Your task to perform on an android device: turn pop-ups off in chrome Image 0: 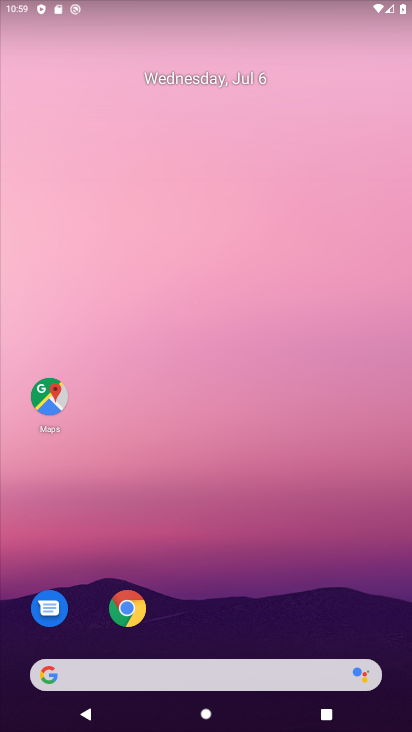
Step 0: drag from (27, 265) to (396, 394)
Your task to perform on an android device: turn pop-ups off in chrome Image 1: 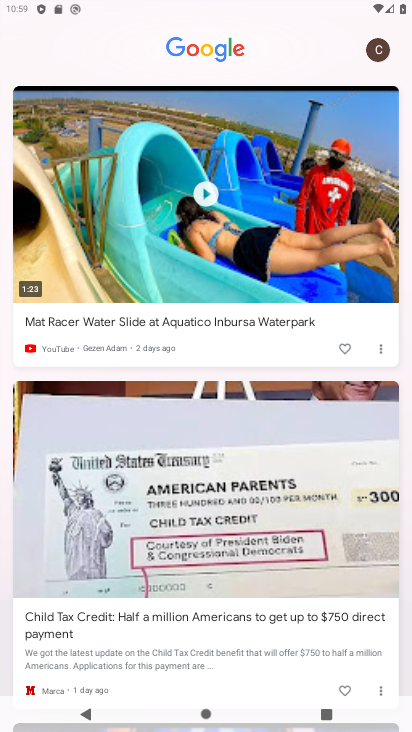
Step 1: drag from (345, 298) to (8, 427)
Your task to perform on an android device: turn pop-ups off in chrome Image 2: 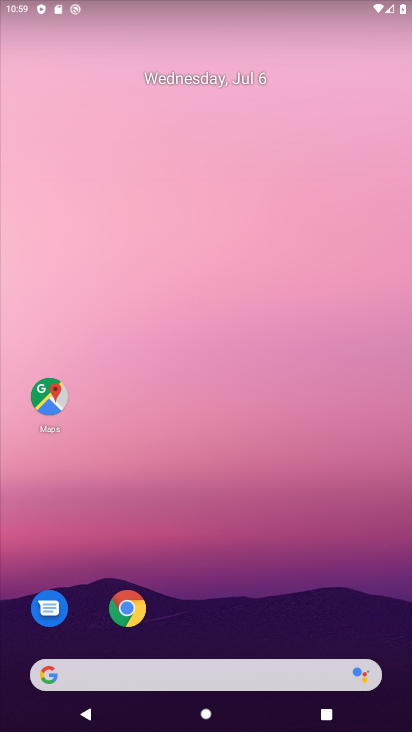
Step 2: click (126, 614)
Your task to perform on an android device: turn pop-ups off in chrome Image 3: 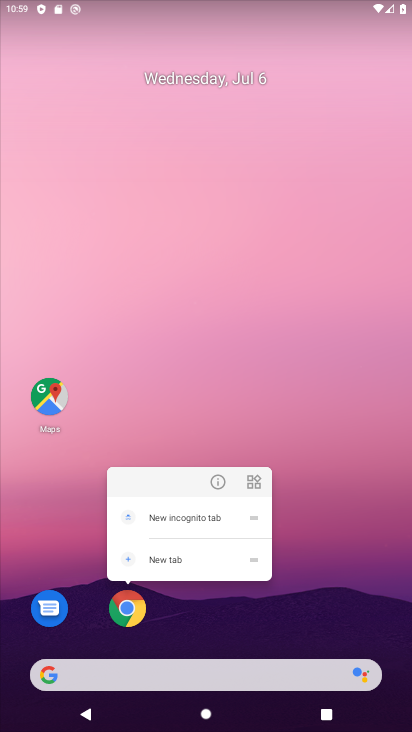
Step 3: click (221, 479)
Your task to perform on an android device: turn pop-ups off in chrome Image 4: 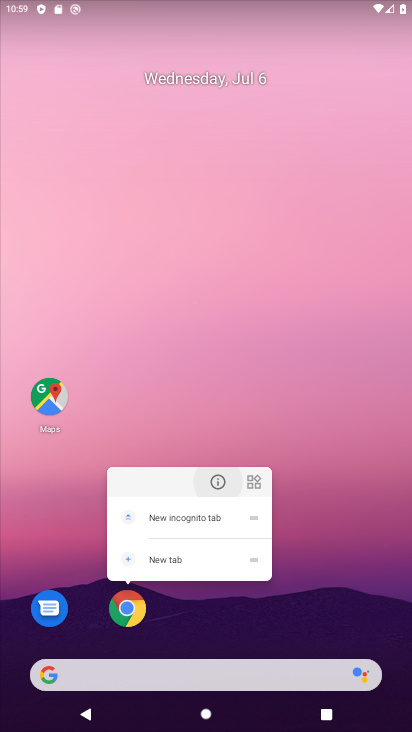
Step 4: click (222, 478)
Your task to perform on an android device: turn pop-ups off in chrome Image 5: 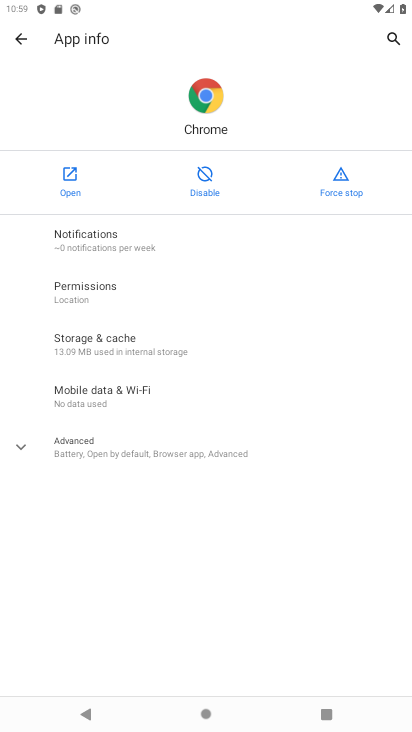
Step 5: click (78, 452)
Your task to perform on an android device: turn pop-ups off in chrome Image 6: 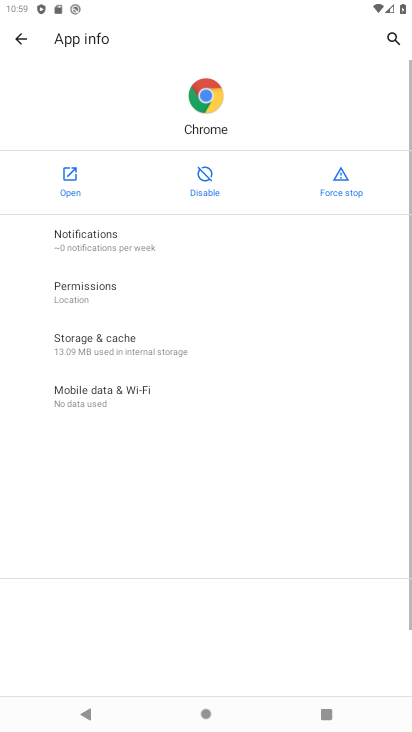
Step 6: click (78, 452)
Your task to perform on an android device: turn pop-ups off in chrome Image 7: 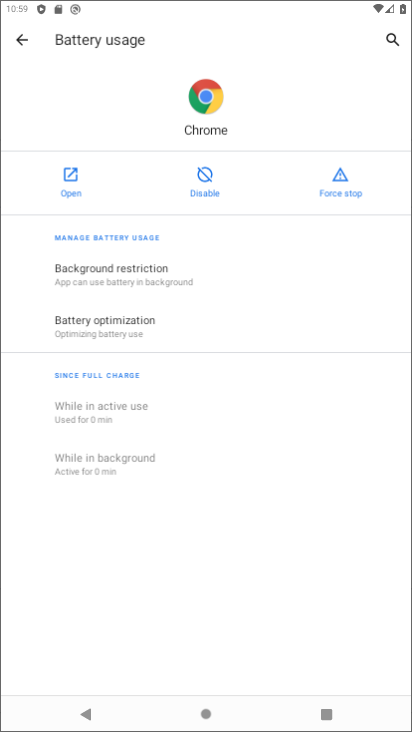
Step 7: drag from (134, 635) to (128, 213)
Your task to perform on an android device: turn pop-ups off in chrome Image 8: 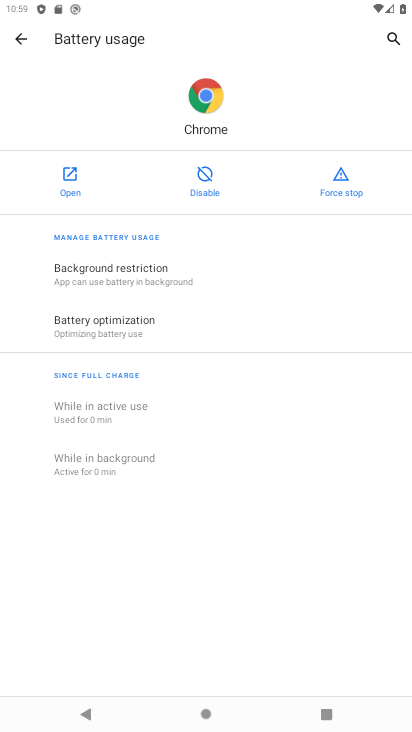
Step 8: drag from (110, 300) to (127, 637)
Your task to perform on an android device: turn pop-ups off in chrome Image 9: 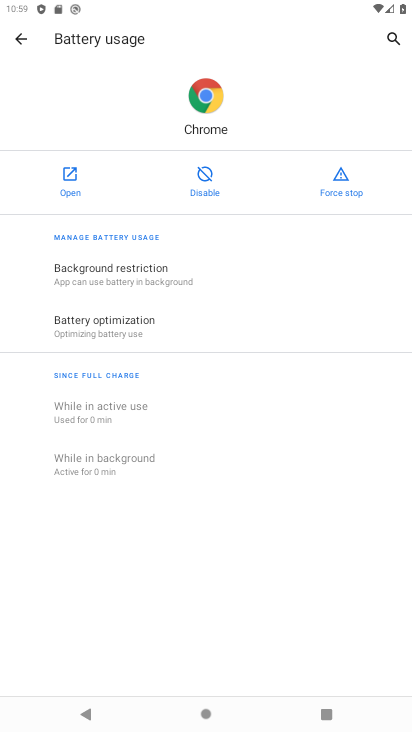
Step 9: drag from (104, 326) to (104, 693)
Your task to perform on an android device: turn pop-ups off in chrome Image 10: 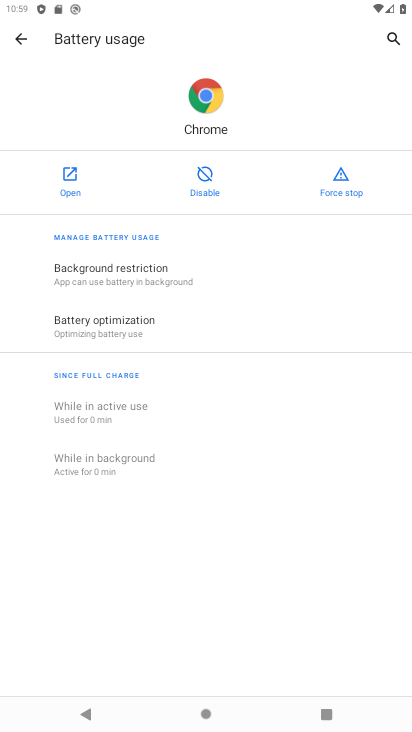
Step 10: drag from (83, 358) to (135, 600)
Your task to perform on an android device: turn pop-ups off in chrome Image 11: 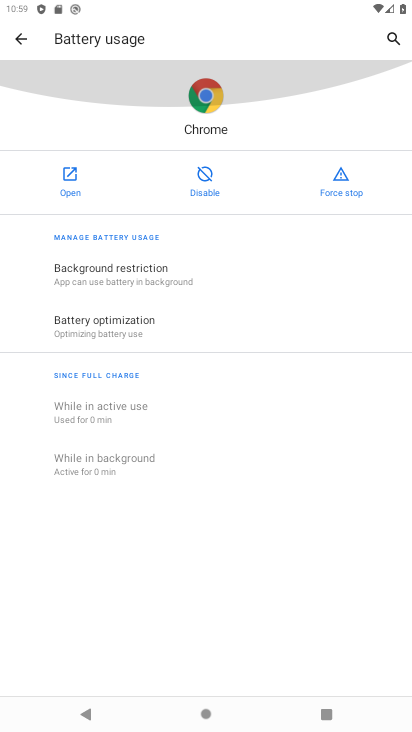
Step 11: drag from (140, 303) to (182, 554)
Your task to perform on an android device: turn pop-ups off in chrome Image 12: 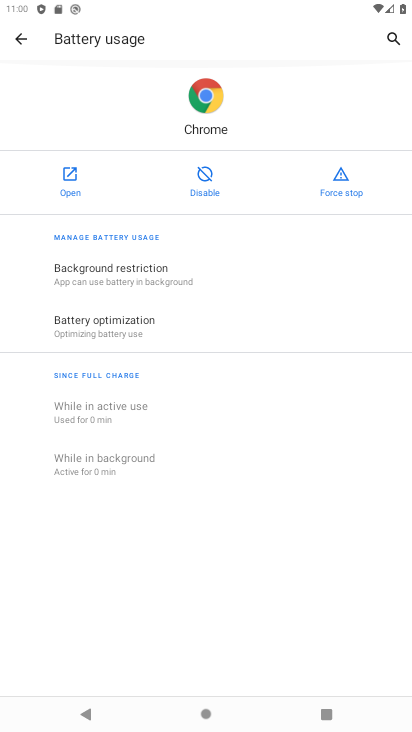
Step 12: click (12, 37)
Your task to perform on an android device: turn pop-ups off in chrome Image 13: 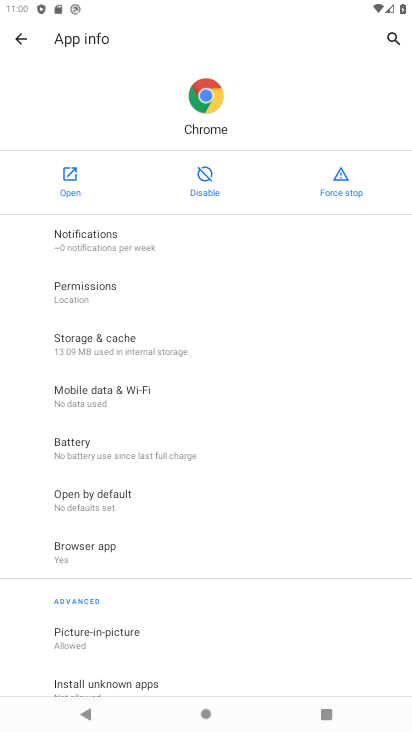
Step 13: drag from (131, 605) to (197, 259)
Your task to perform on an android device: turn pop-ups off in chrome Image 14: 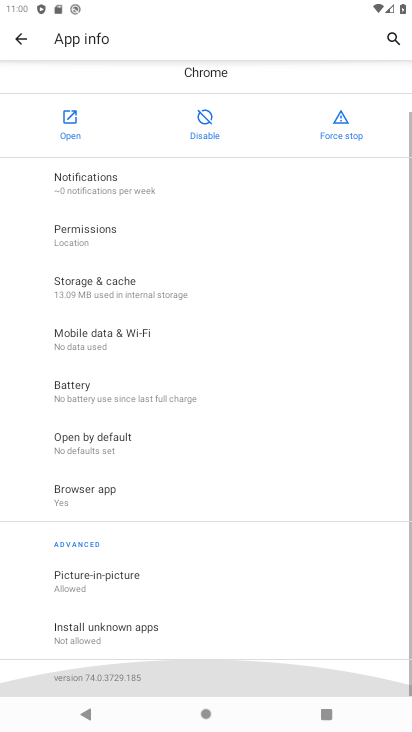
Step 14: drag from (208, 445) to (190, 279)
Your task to perform on an android device: turn pop-ups off in chrome Image 15: 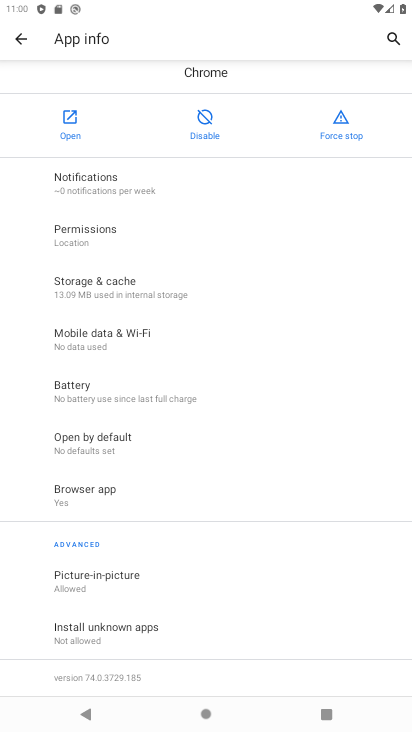
Step 15: click (27, 43)
Your task to perform on an android device: turn pop-ups off in chrome Image 16: 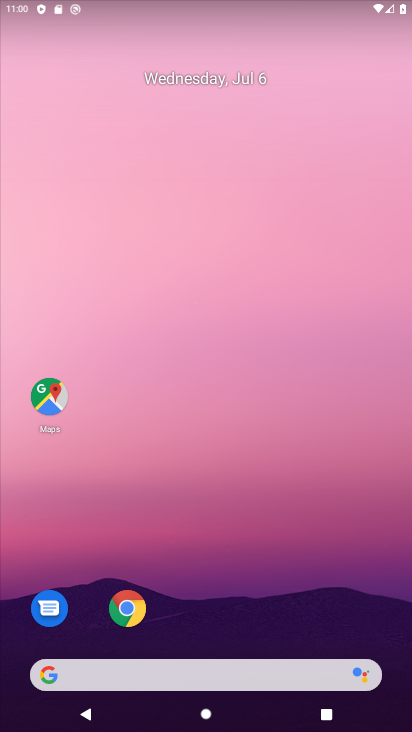
Step 16: click (131, 611)
Your task to perform on an android device: turn pop-ups off in chrome Image 17: 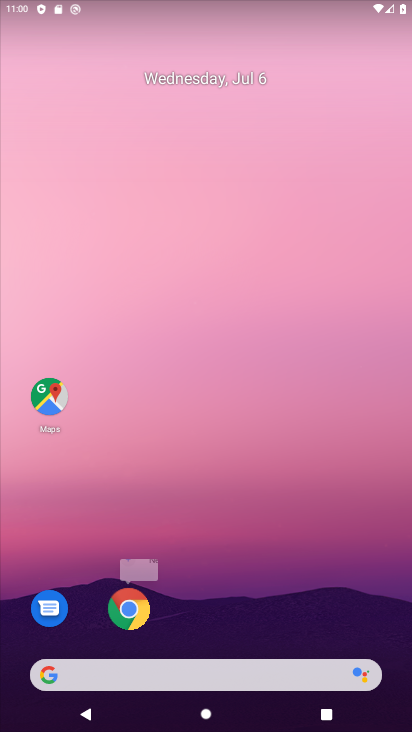
Step 17: click (127, 610)
Your task to perform on an android device: turn pop-ups off in chrome Image 18: 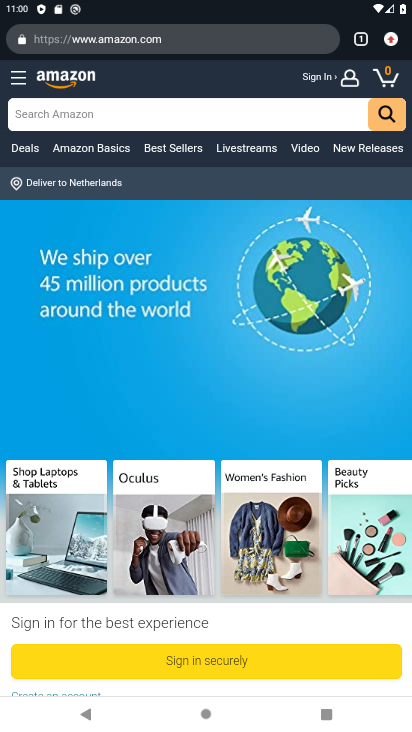
Step 18: drag from (258, 217) to (254, 605)
Your task to perform on an android device: turn pop-ups off in chrome Image 19: 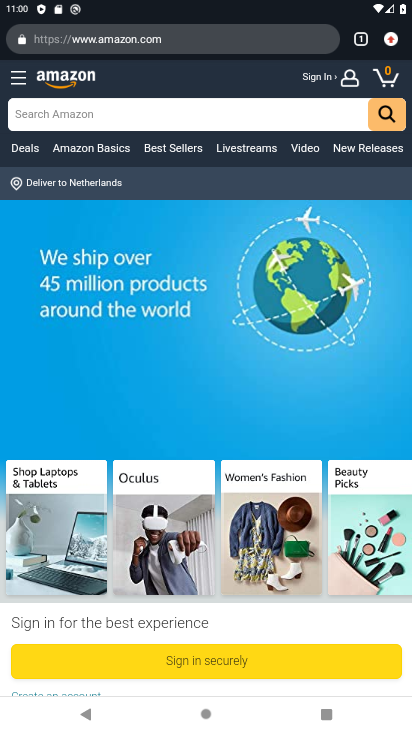
Step 19: drag from (259, 288) to (293, 515)
Your task to perform on an android device: turn pop-ups off in chrome Image 20: 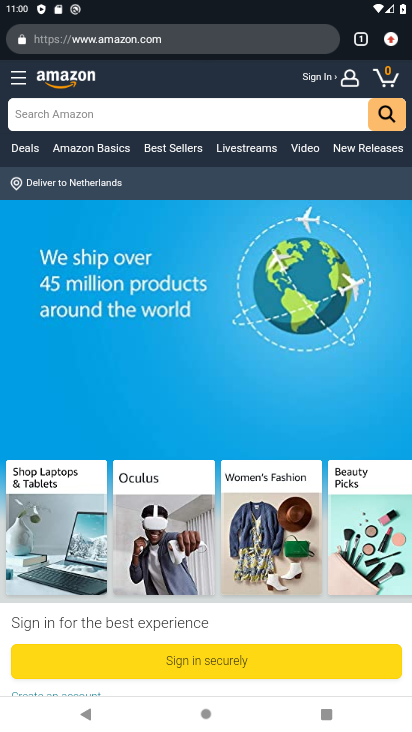
Step 20: drag from (217, 125) to (248, 595)
Your task to perform on an android device: turn pop-ups off in chrome Image 21: 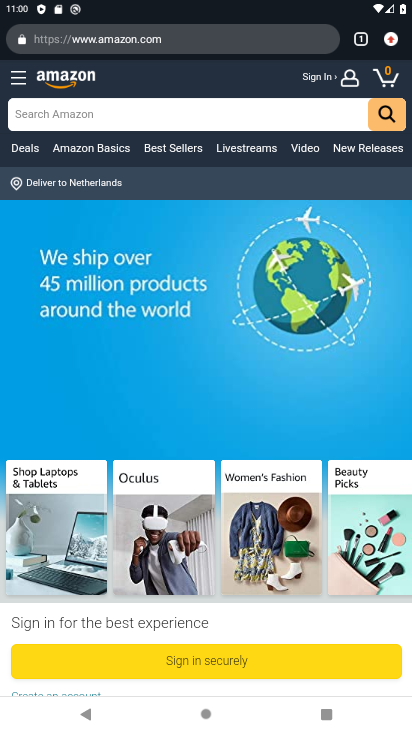
Step 21: drag from (209, 209) to (224, 506)
Your task to perform on an android device: turn pop-ups off in chrome Image 22: 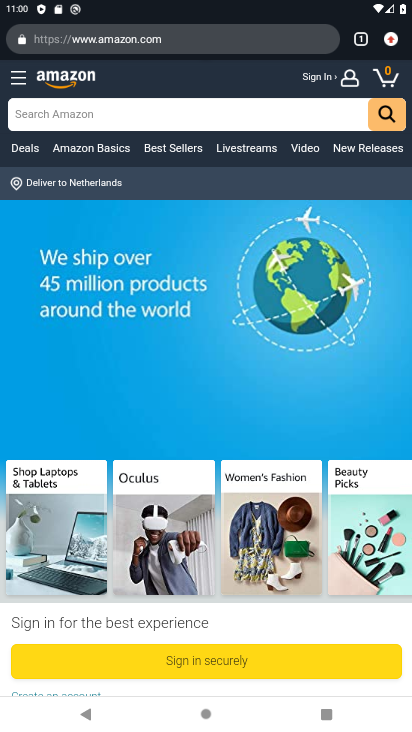
Step 22: drag from (205, 311) to (225, 548)
Your task to perform on an android device: turn pop-ups off in chrome Image 23: 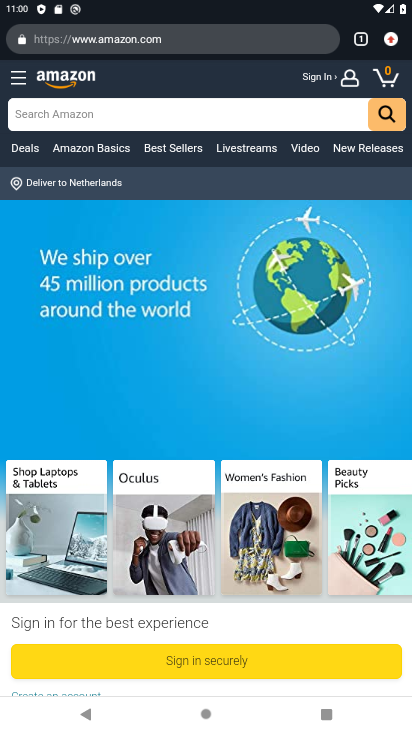
Step 23: drag from (135, 92) to (297, 721)
Your task to perform on an android device: turn pop-ups off in chrome Image 24: 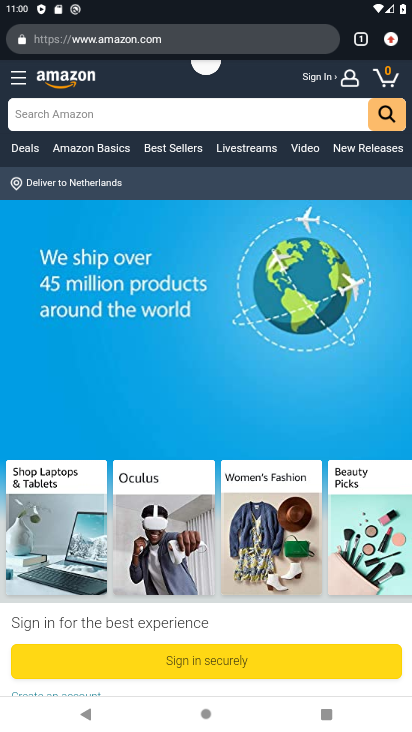
Step 24: drag from (70, 280) to (229, 674)
Your task to perform on an android device: turn pop-ups off in chrome Image 25: 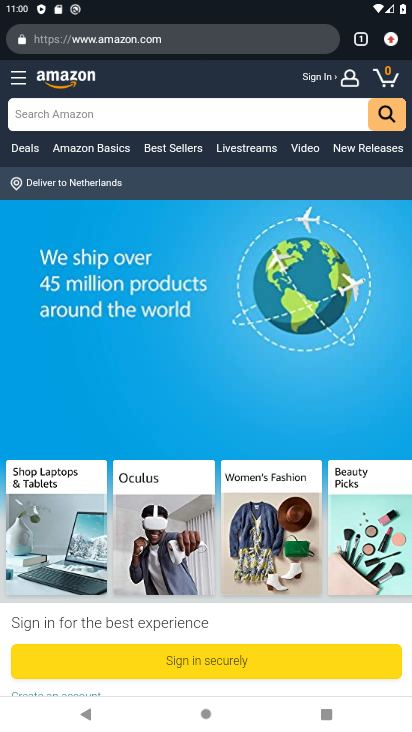
Step 25: drag from (125, 272) to (246, 657)
Your task to perform on an android device: turn pop-ups off in chrome Image 26: 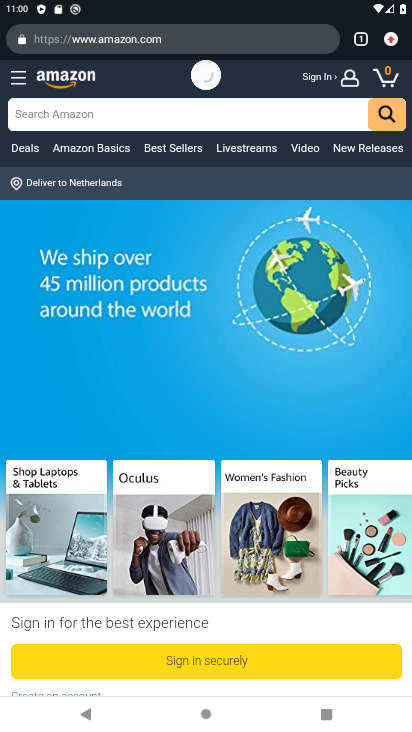
Step 26: drag from (50, 304) to (158, 699)
Your task to perform on an android device: turn pop-ups off in chrome Image 27: 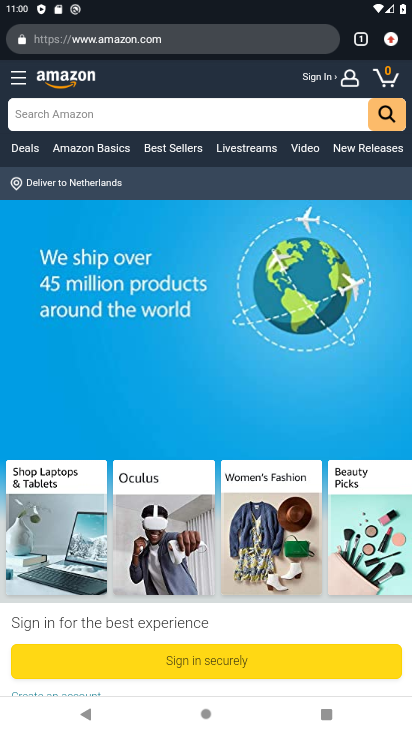
Step 27: press back button
Your task to perform on an android device: turn pop-ups off in chrome Image 28: 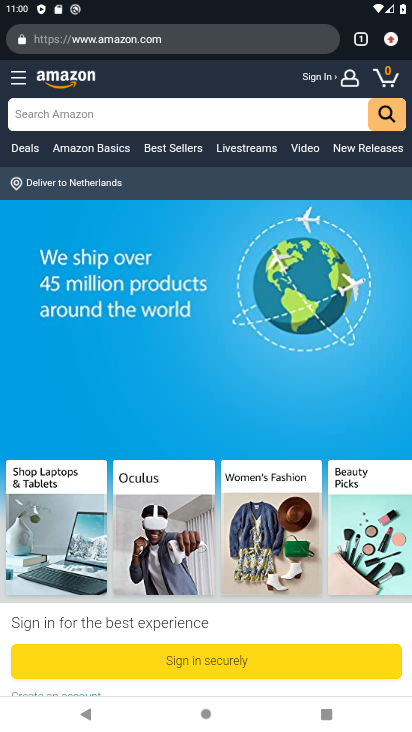
Step 28: press back button
Your task to perform on an android device: turn pop-ups off in chrome Image 29: 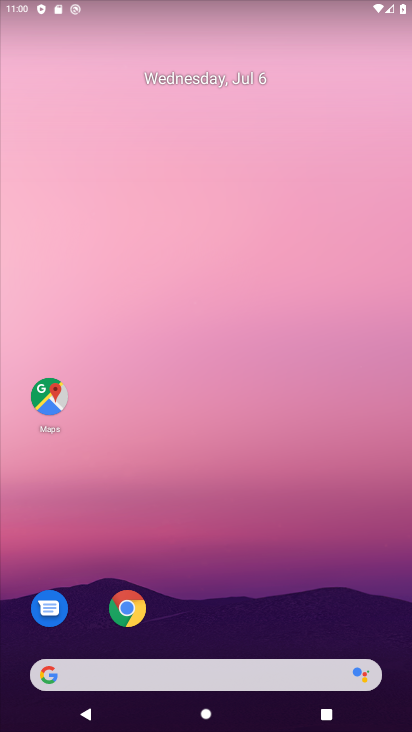
Step 29: drag from (239, 710) to (137, 195)
Your task to perform on an android device: turn pop-ups off in chrome Image 30: 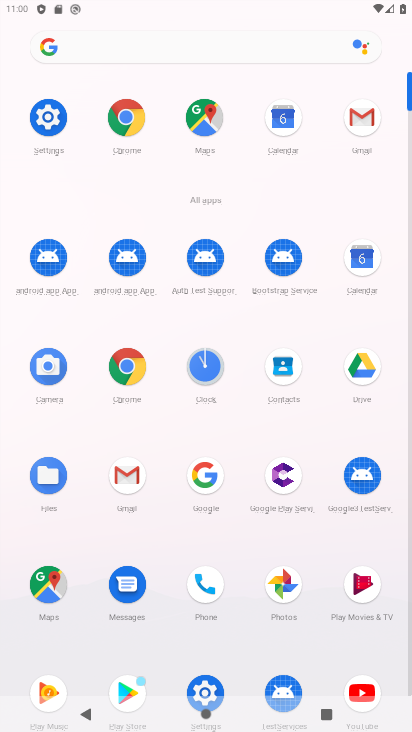
Step 30: drag from (283, 666) to (147, 95)
Your task to perform on an android device: turn pop-ups off in chrome Image 31: 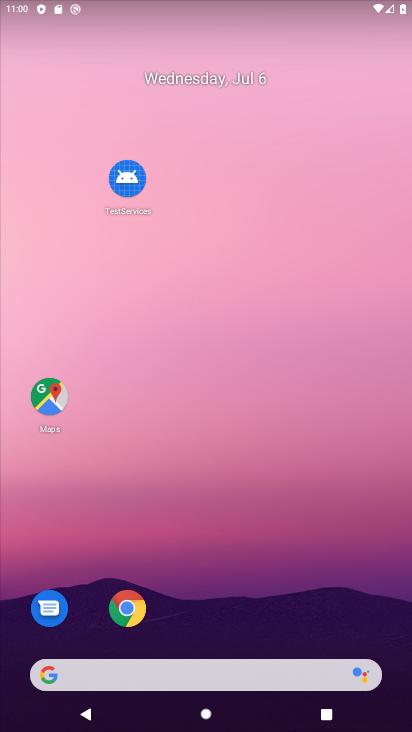
Step 31: click (124, 357)
Your task to perform on an android device: turn pop-ups off in chrome Image 32: 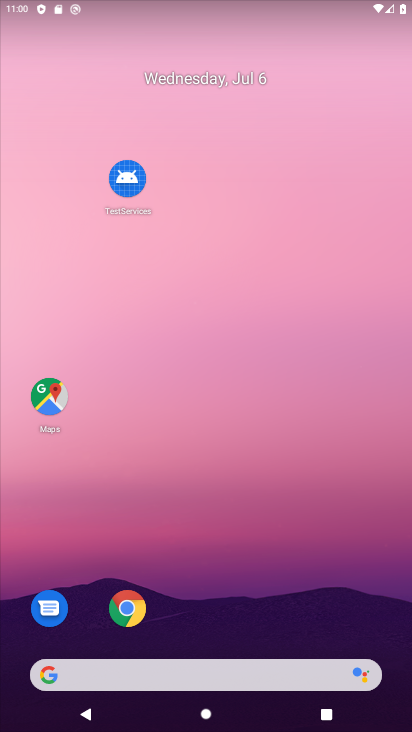
Step 32: drag from (284, 616) to (137, 154)
Your task to perform on an android device: turn pop-ups off in chrome Image 33: 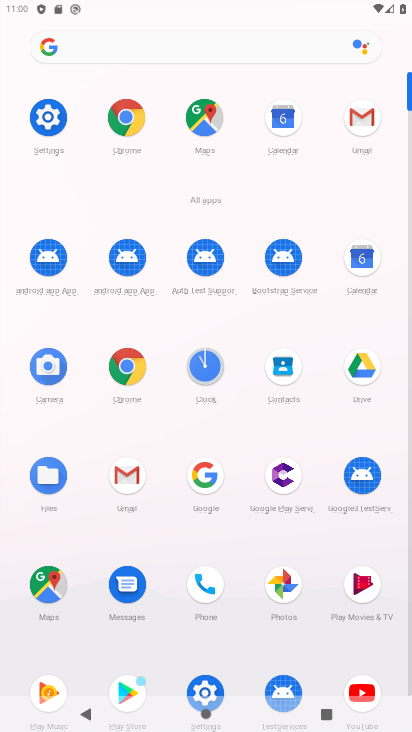
Step 33: click (120, 372)
Your task to perform on an android device: turn pop-ups off in chrome Image 34: 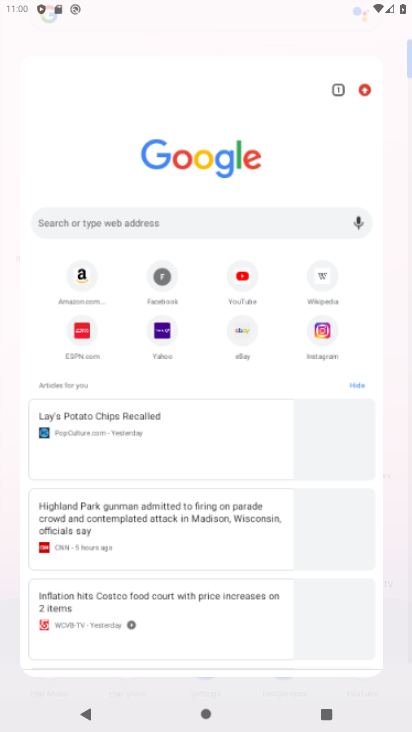
Step 34: click (117, 371)
Your task to perform on an android device: turn pop-ups off in chrome Image 35: 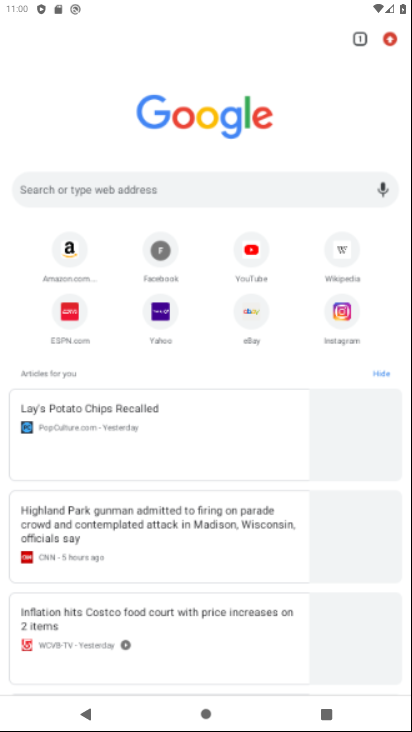
Step 35: click (125, 361)
Your task to perform on an android device: turn pop-ups off in chrome Image 36: 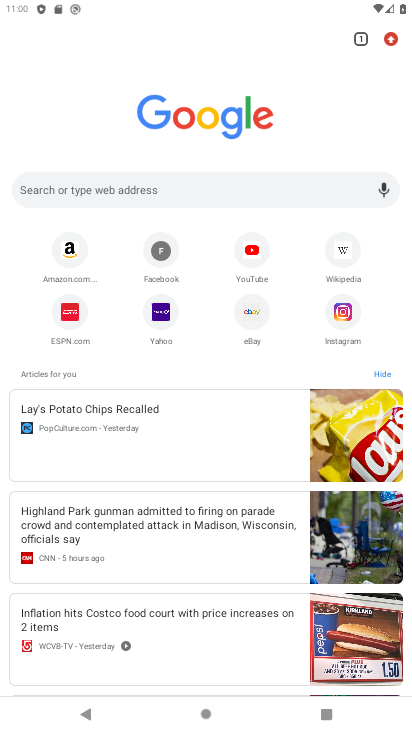
Step 36: drag from (390, 37) to (378, 698)
Your task to perform on an android device: turn pop-ups off in chrome Image 37: 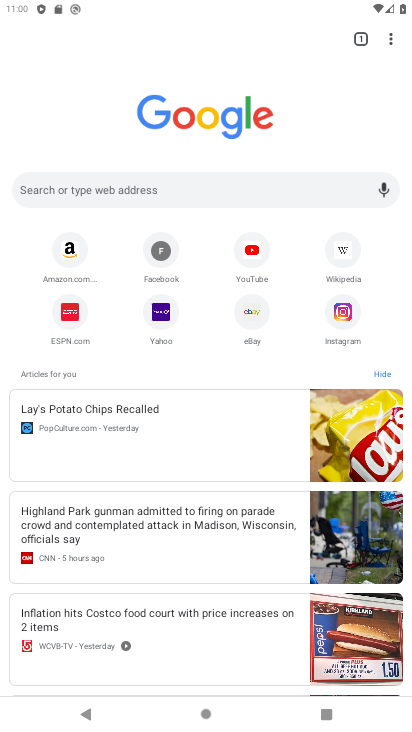
Step 37: click (392, 47)
Your task to perform on an android device: turn pop-ups off in chrome Image 38: 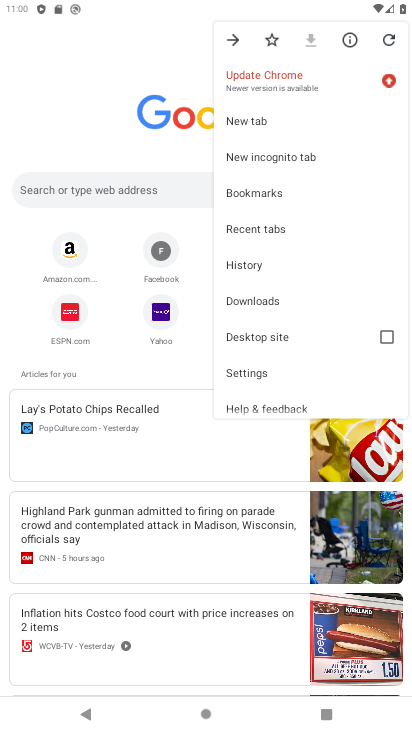
Step 38: click (250, 367)
Your task to perform on an android device: turn pop-ups off in chrome Image 39: 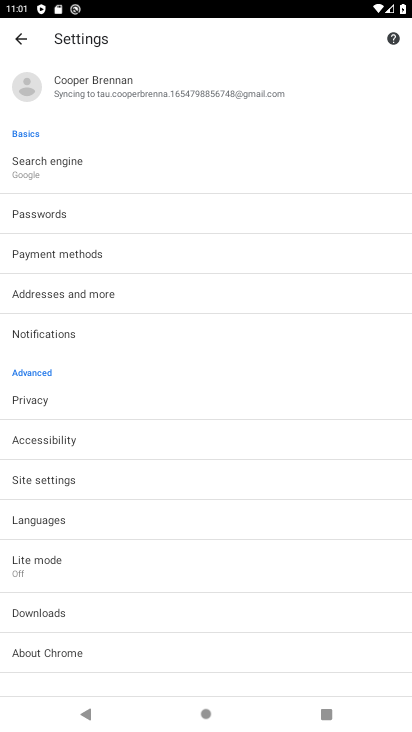
Step 39: click (44, 478)
Your task to perform on an android device: turn pop-ups off in chrome Image 40: 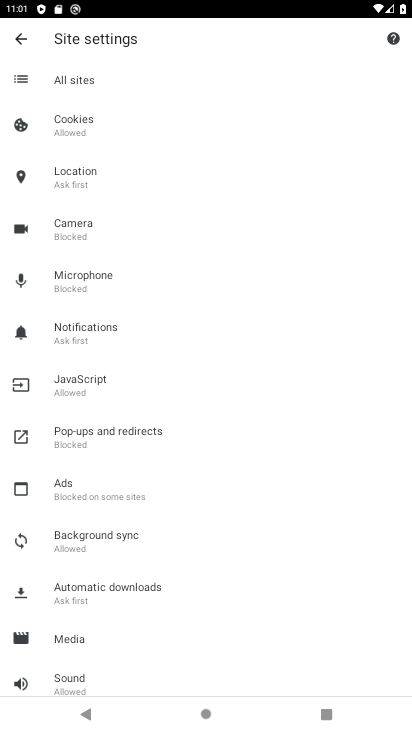
Step 40: click (101, 423)
Your task to perform on an android device: turn pop-ups off in chrome Image 41: 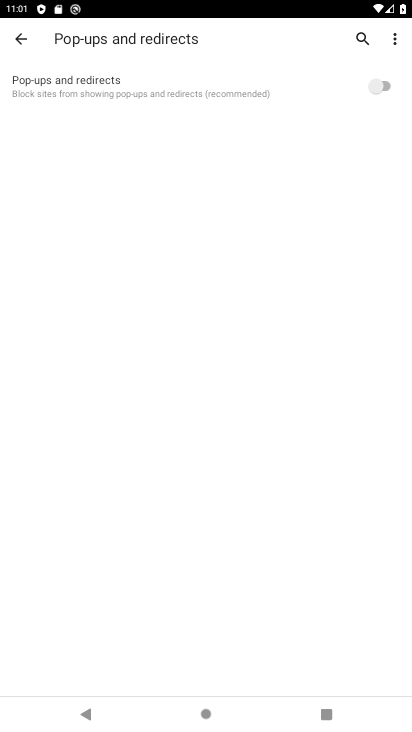
Step 41: task complete